Your task to perform on an android device: turn off sleep mode Image 0: 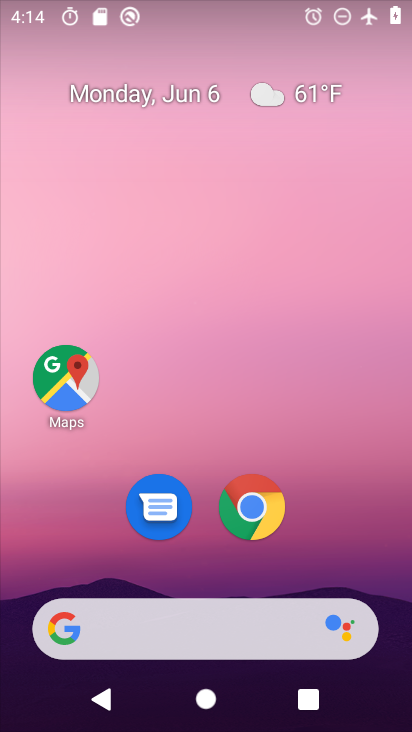
Step 0: drag from (202, 582) to (236, 159)
Your task to perform on an android device: turn off sleep mode Image 1: 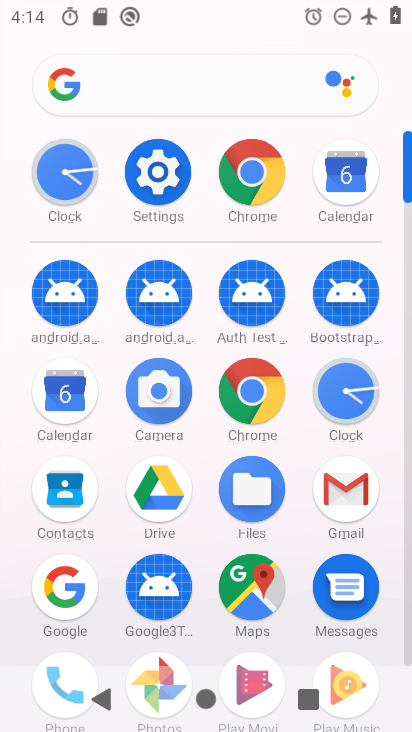
Step 1: click (166, 183)
Your task to perform on an android device: turn off sleep mode Image 2: 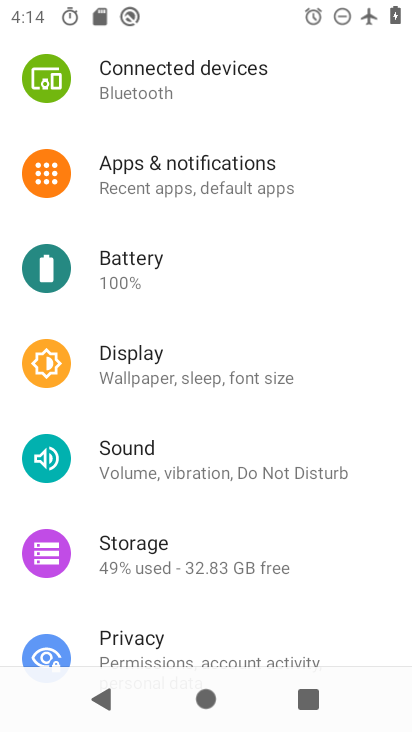
Step 2: click (182, 382)
Your task to perform on an android device: turn off sleep mode Image 3: 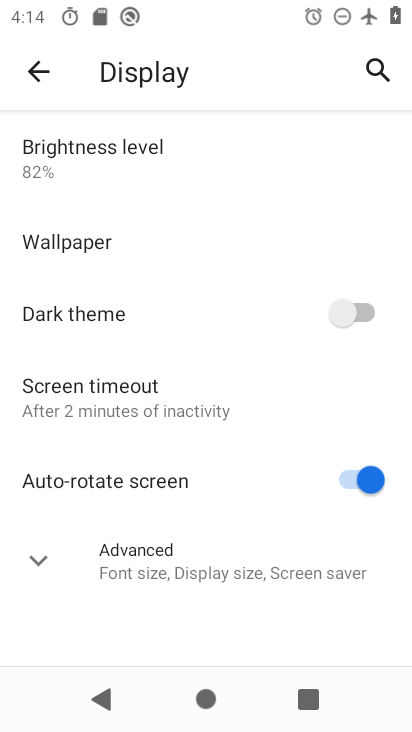
Step 3: click (160, 390)
Your task to perform on an android device: turn off sleep mode Image 4: 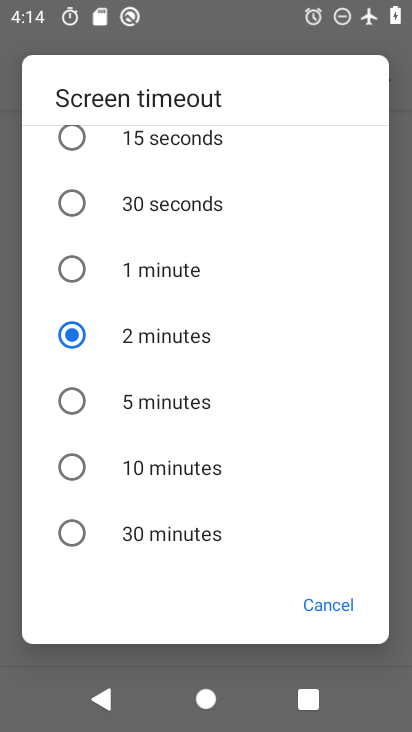
Step 4: click (141, 210)
Your task to perform on an android device: turn off sleep mode Image 5: 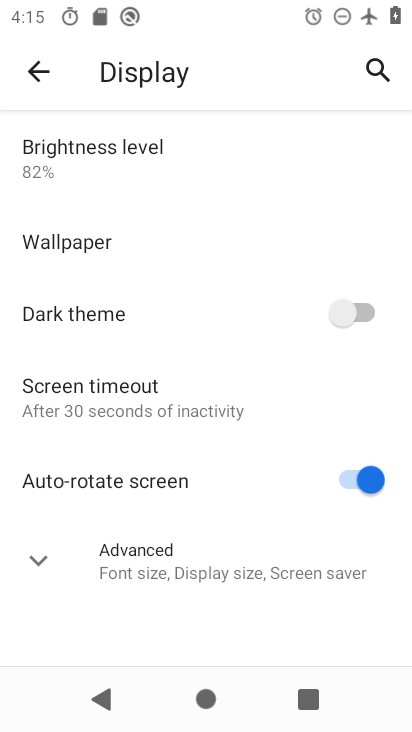
Step 5: task complete